Your task to perform on an android device: turn off location Image 0: 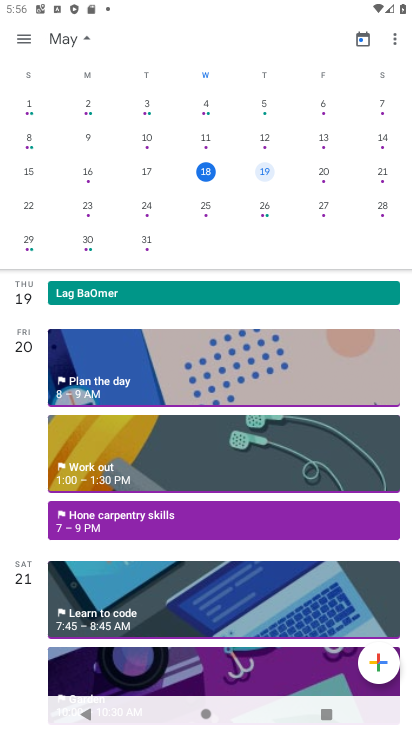
Step 0: press home button
Your task to perform on an android device: turn off location Image 1: 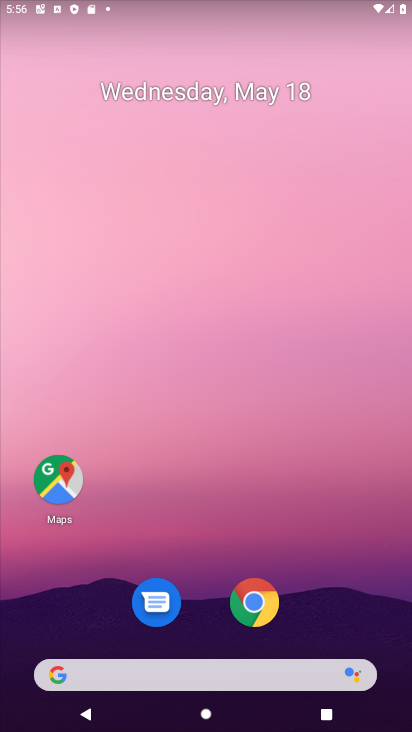
Step 1: drag from (319, 655) to (287, 6)
Your task to perform on an android device: turn off location Image 2: 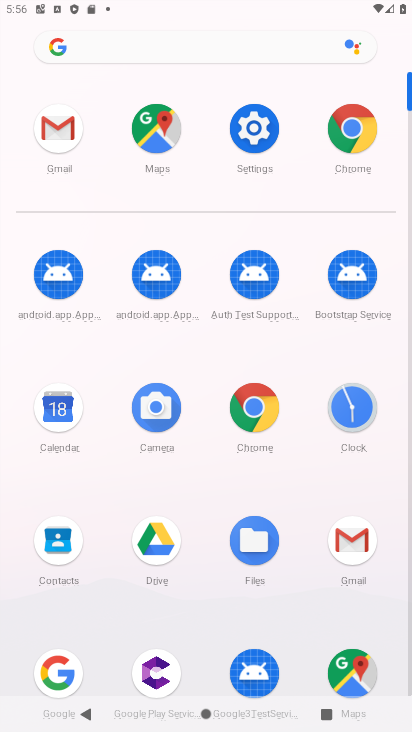
Step 2: click (253, 118)
Your task to perform on an android device: turn off location Image 3: 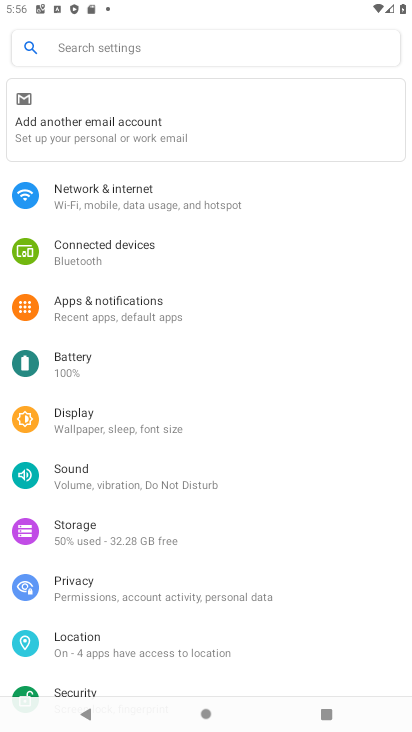
Step 3: click (75, 639)
Your task to perform on an android device: turn off location Image 4: 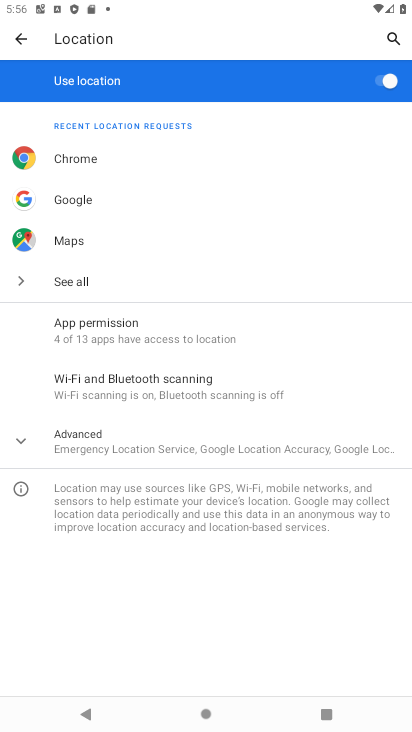
Step 4: click (379, 82)
Your task to perform on an android device: turn off location Image 5: 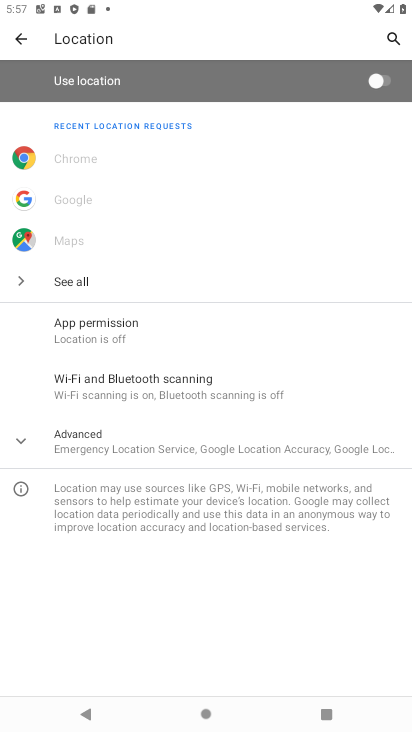
Step 5: task complete